Your task to perform on an android device: open app "Firefox Browser" (install if not already installed) Image 0: 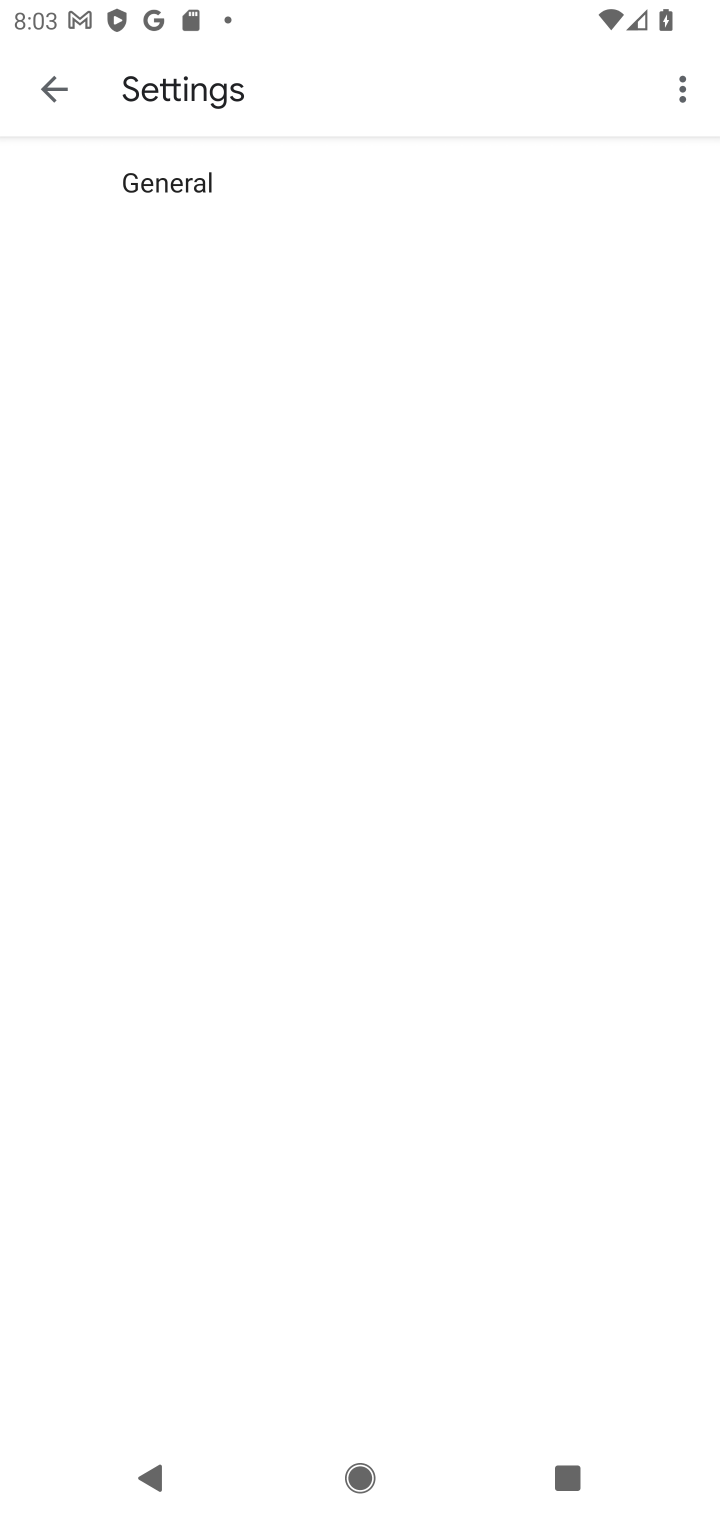
Step 0: press home button
Your task to perform on an android device: open app "Firefox Browser" (install if not already installed) Image 1: 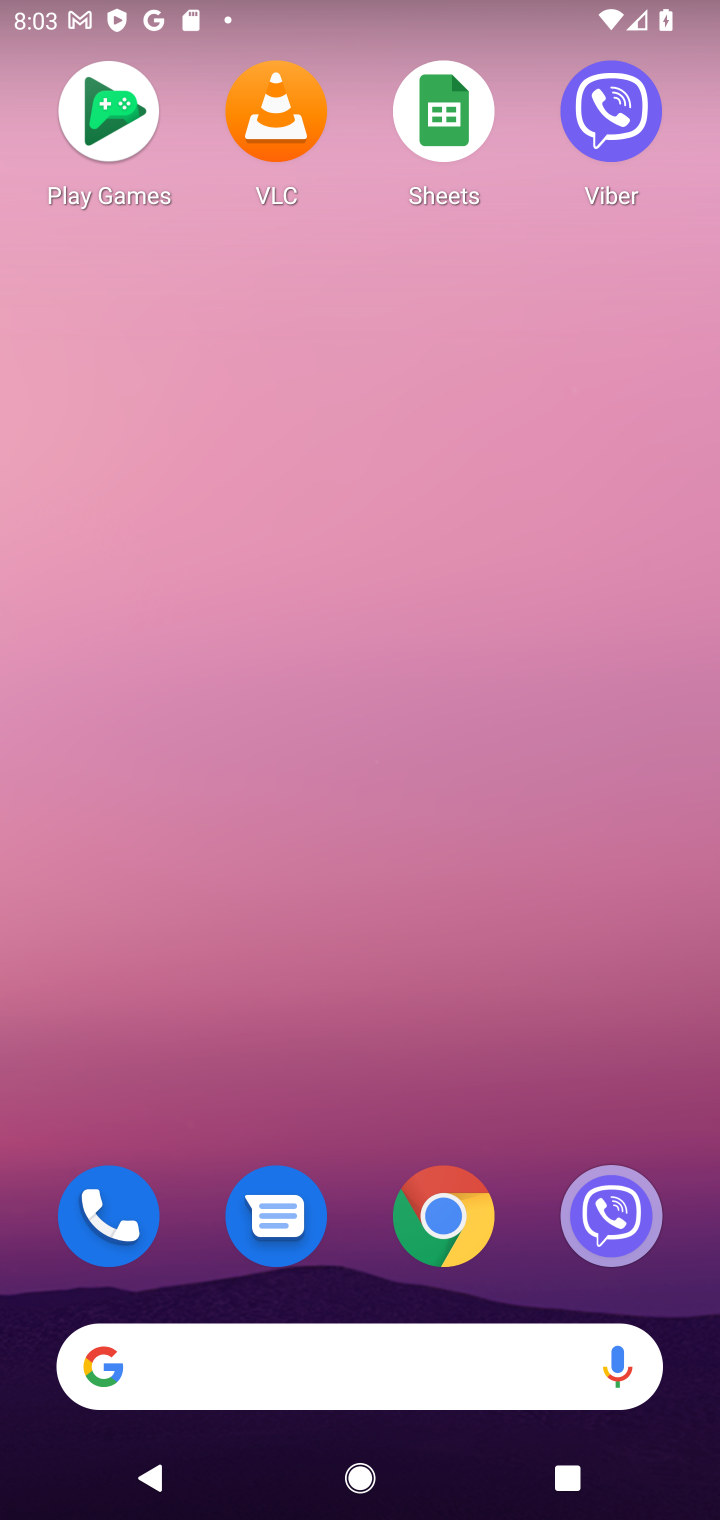
Step 1: drag from (368, 908) to (480, 97)
Your task to perform on an android device: open app "Firefox Browser" (install if not already installed) Image 2: 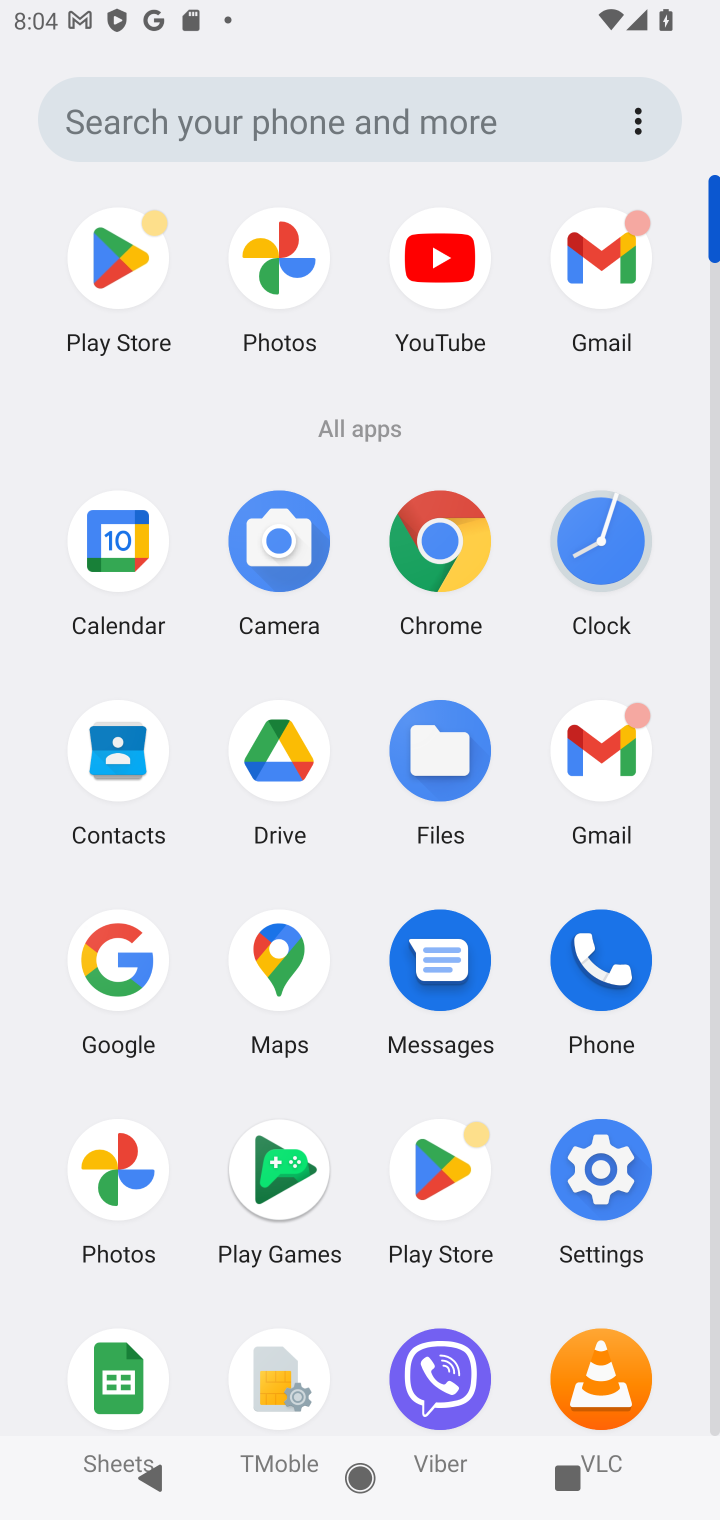
Step 2: click (106, 267)
Your task to perform on an android device: open app "Firefox Browser" (install if not already installed) Image 3: 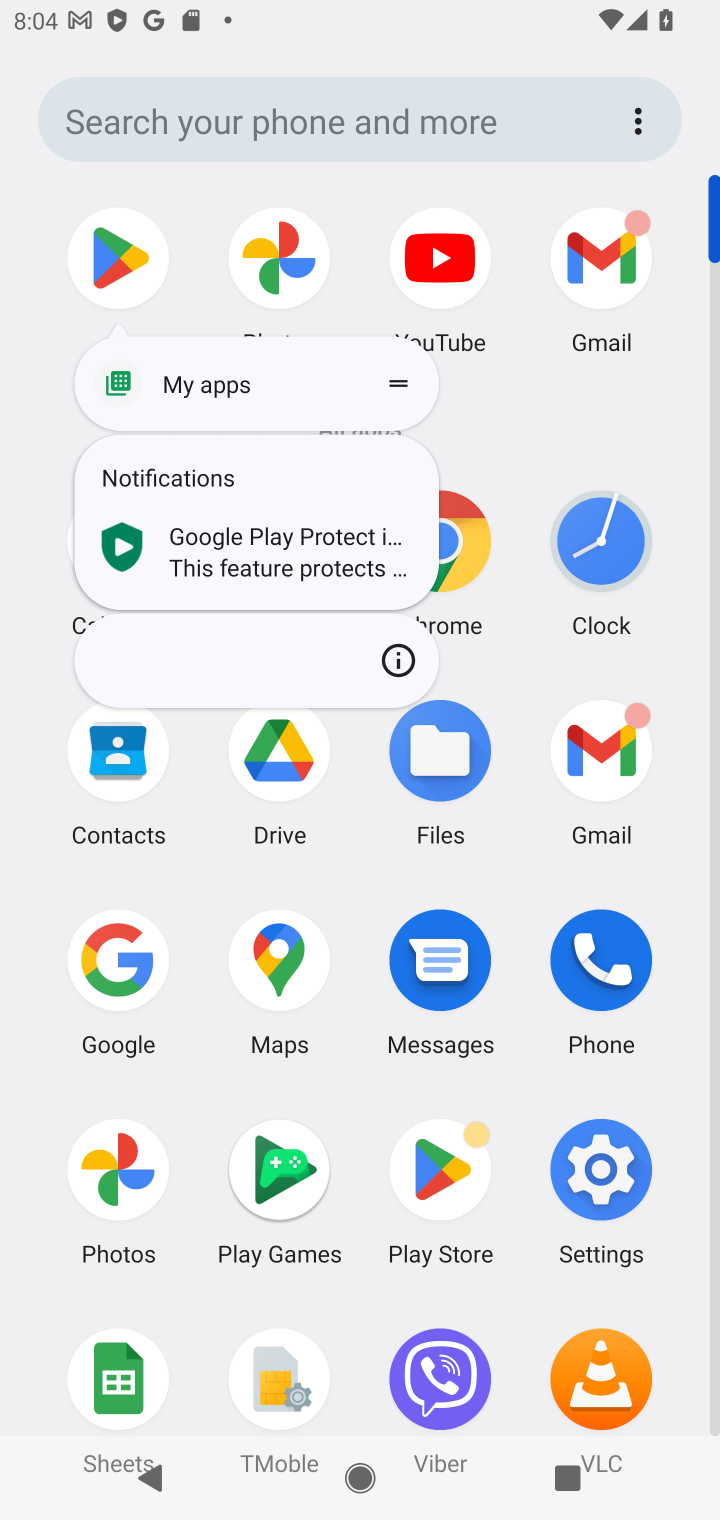
Step 3: click (121, 254)
Your task to perform on an android device: open app "Firefox Browser" (install if not already installed) Image 4: 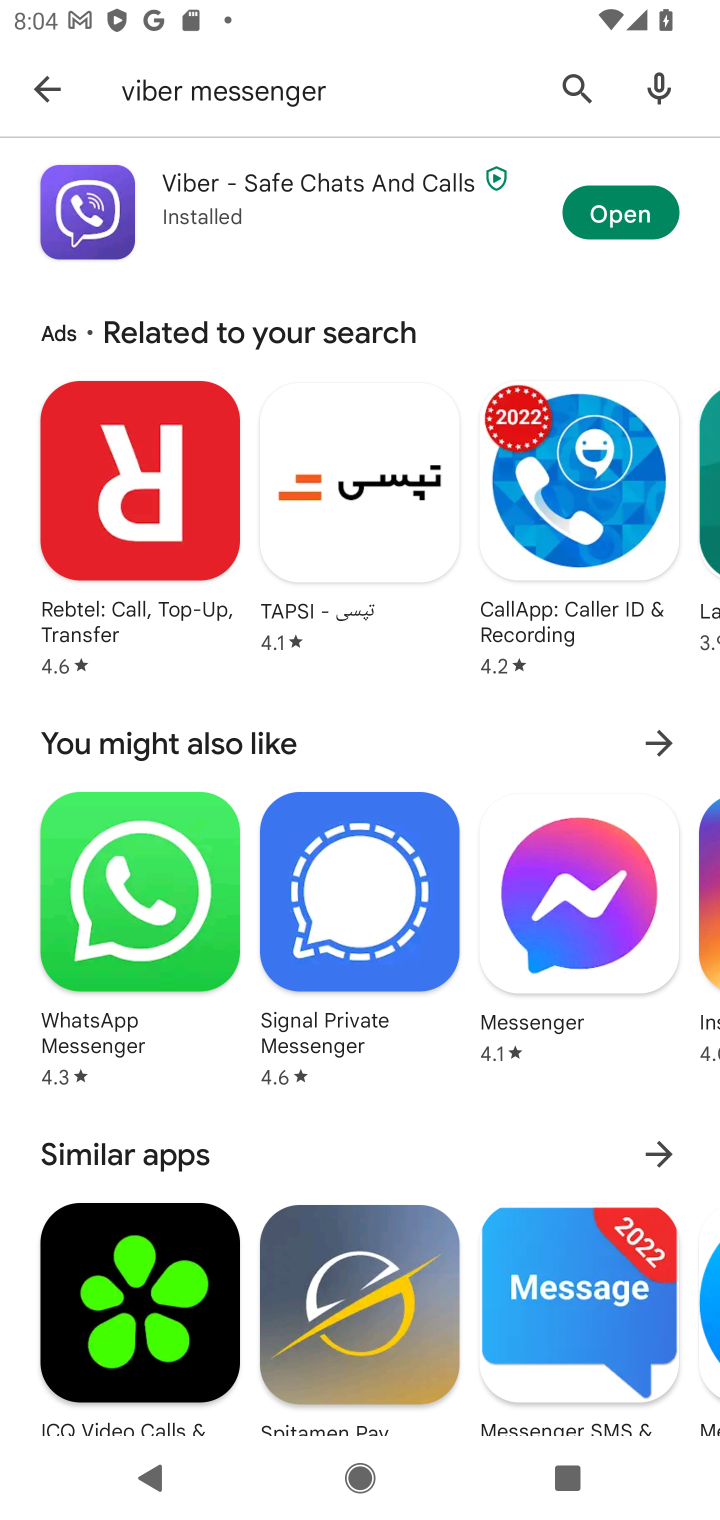
Step 4: click (580, 80)
Your task to perform on an android device: open app "Firefox Browser" (install if not already installed) Image 5: 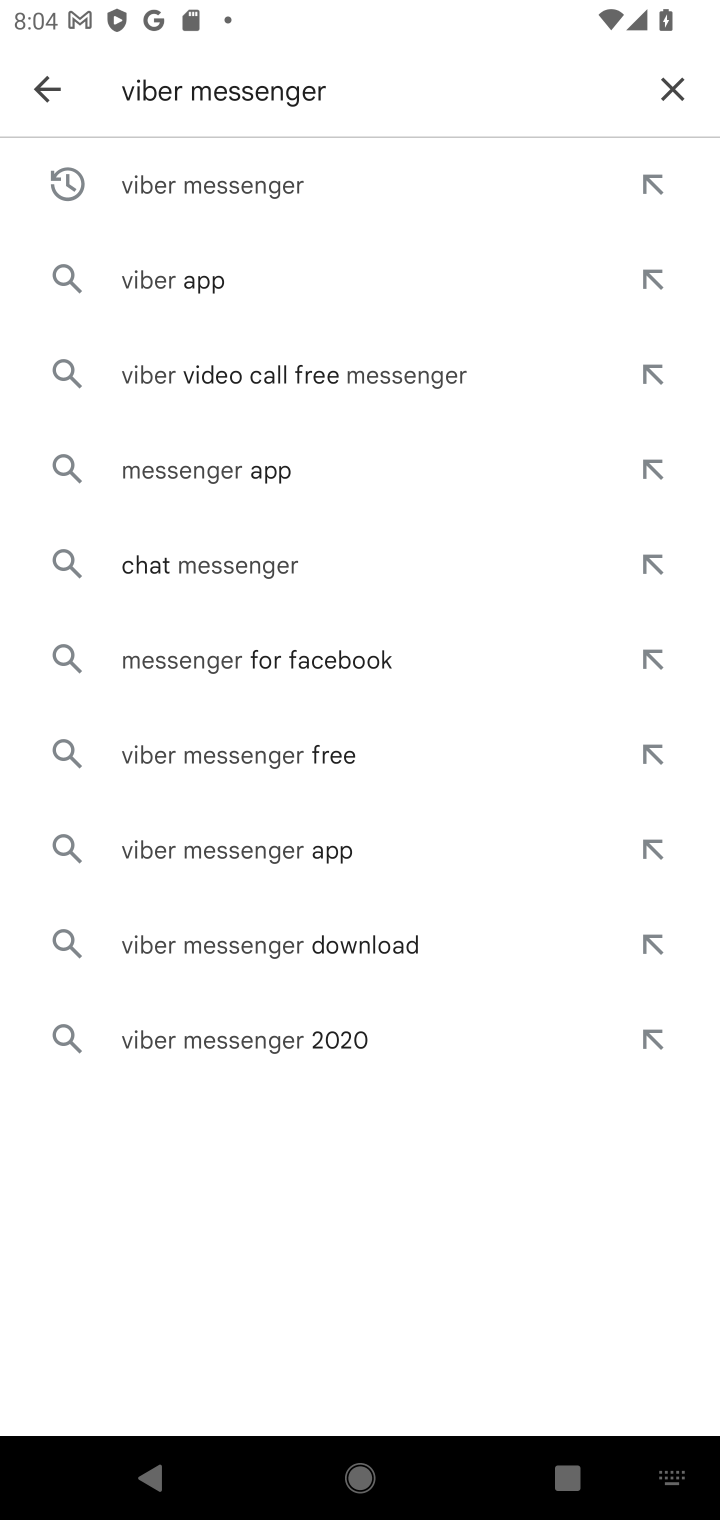
Step 5: click (681, 81)
Your task to perform on an android device: open app "Firefox Browser" (install if not already installed) Image 6: 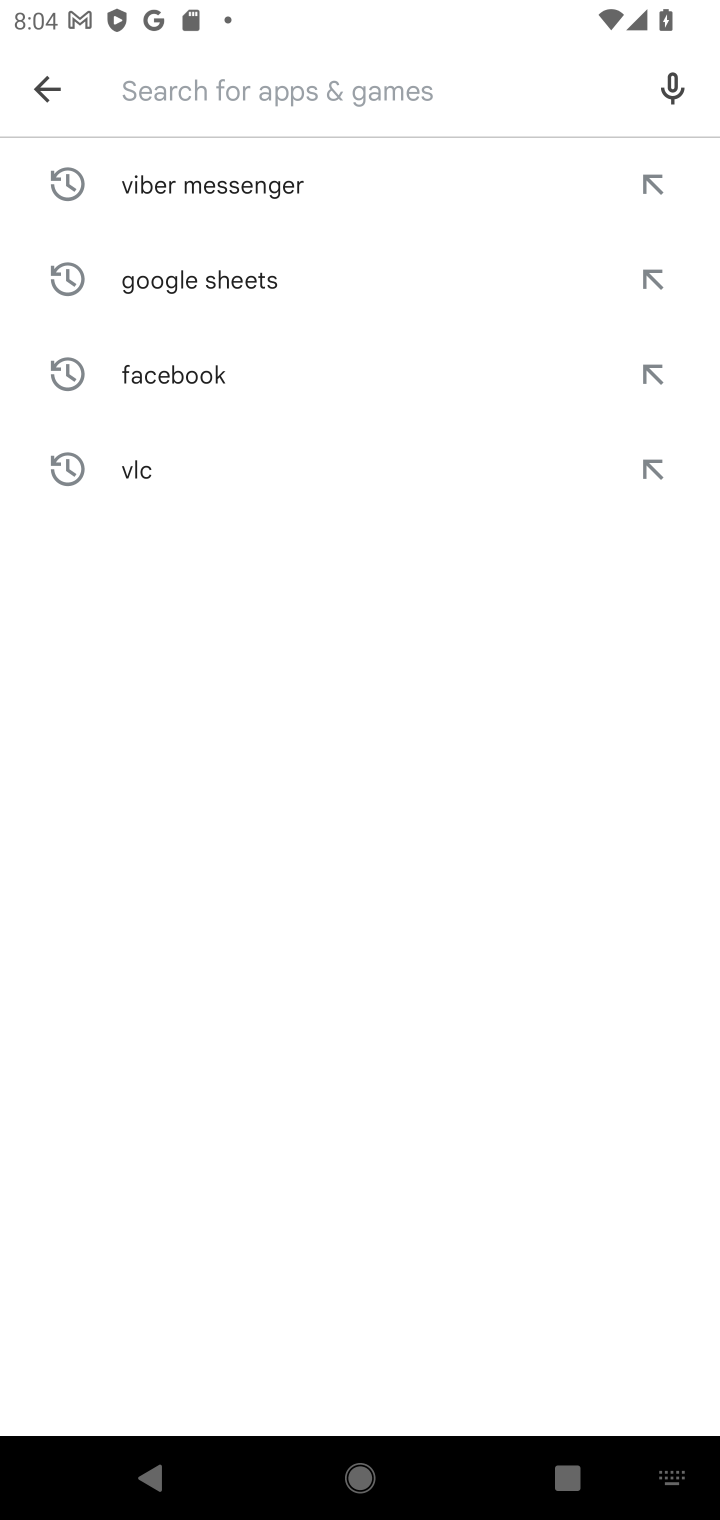
Step 6: click (159, 77)
Your task to perform on an android device: open app "Firefox Browser" (install if not already installed) Image 7: 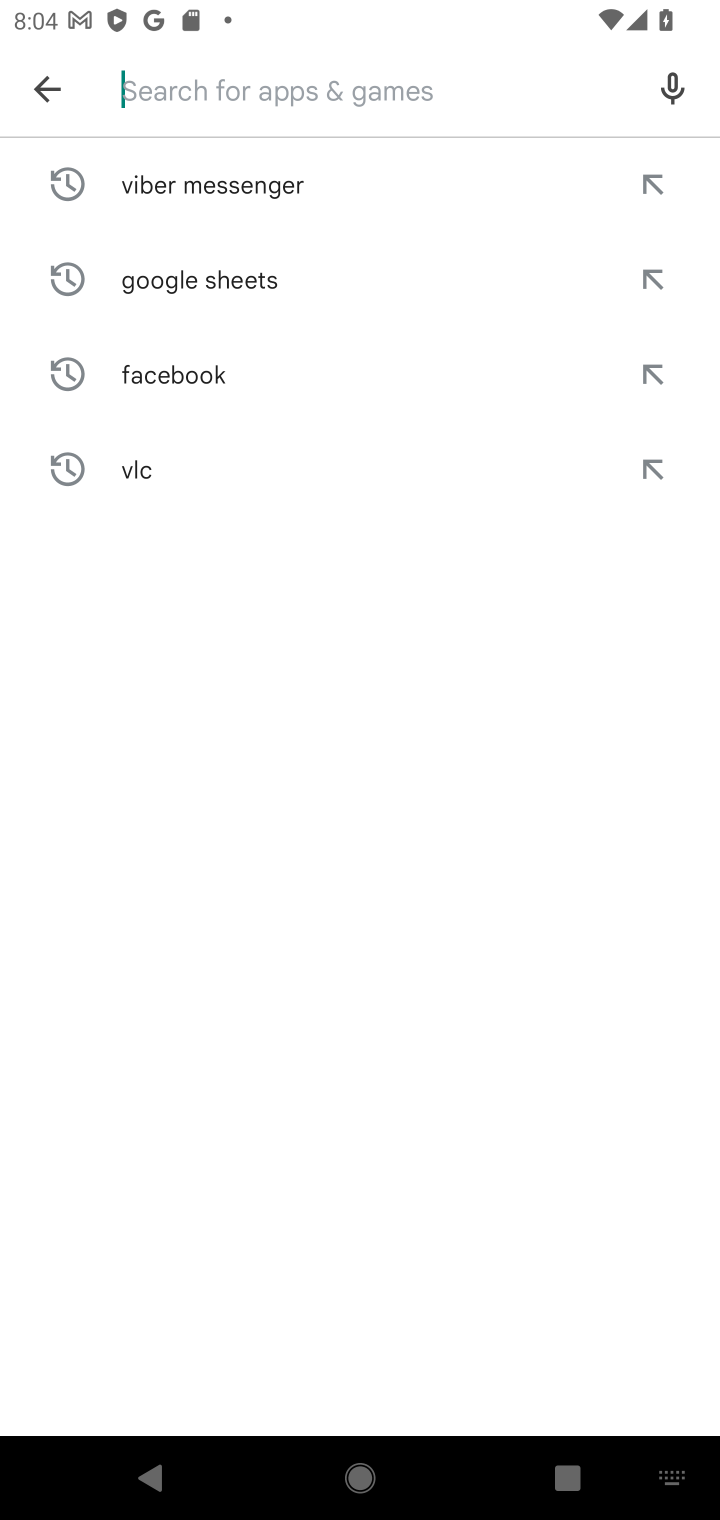
Step 7: click (202, 112)
Your task to perform on an android device: open app "Firefox Browser" (install if not already installed) Image 8: 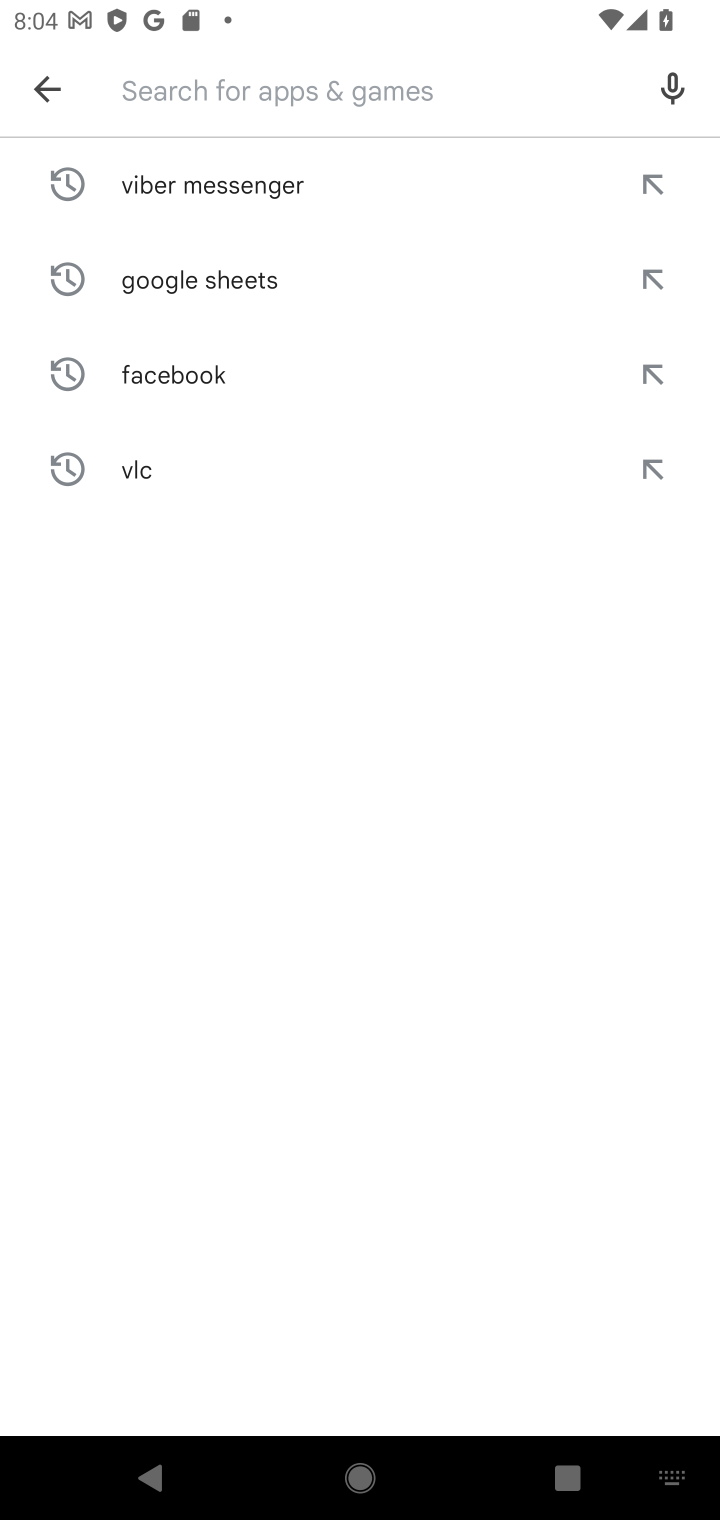
Step 8: type "Firefox Browser"
Your task to perform on an android device: open app "Firefox Browser" (install if not already installed) Image 9: 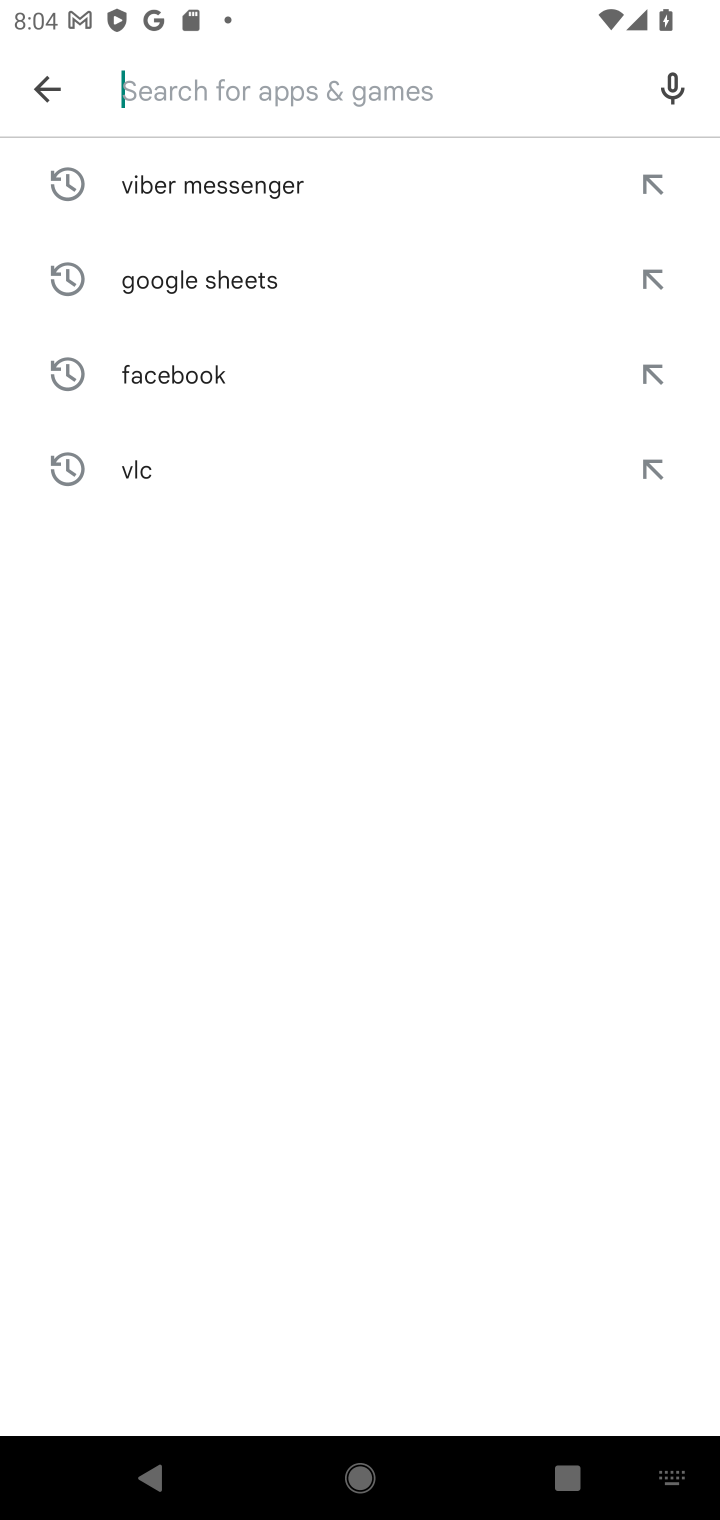
Step 9: click (406, 784)
Your task to perform on an android device: open app "Firefox Browser" (install if not already installed) Image 10: 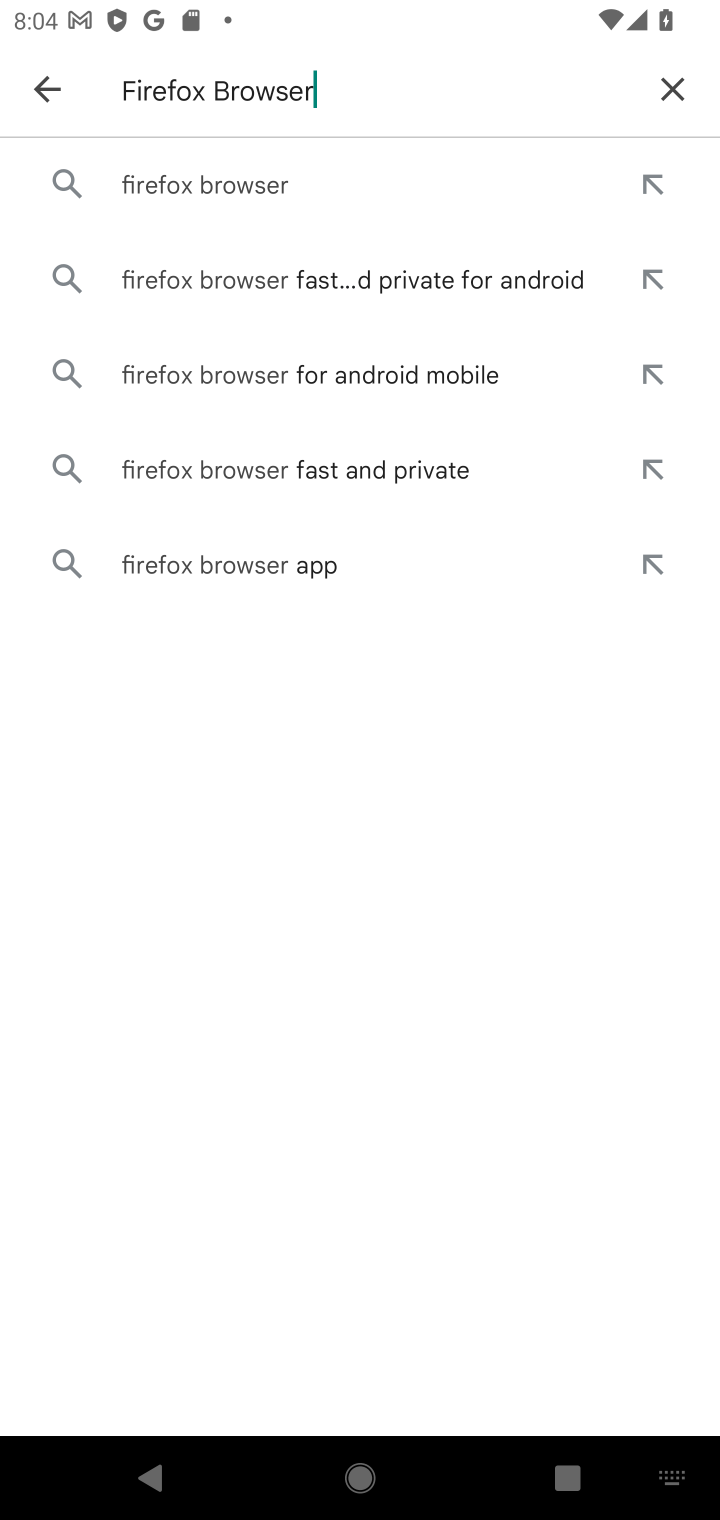
Step 10: click (214, 179)
Your task to perform on an android device: open app "Firefox Browser" (install if not already installed) Image 11: 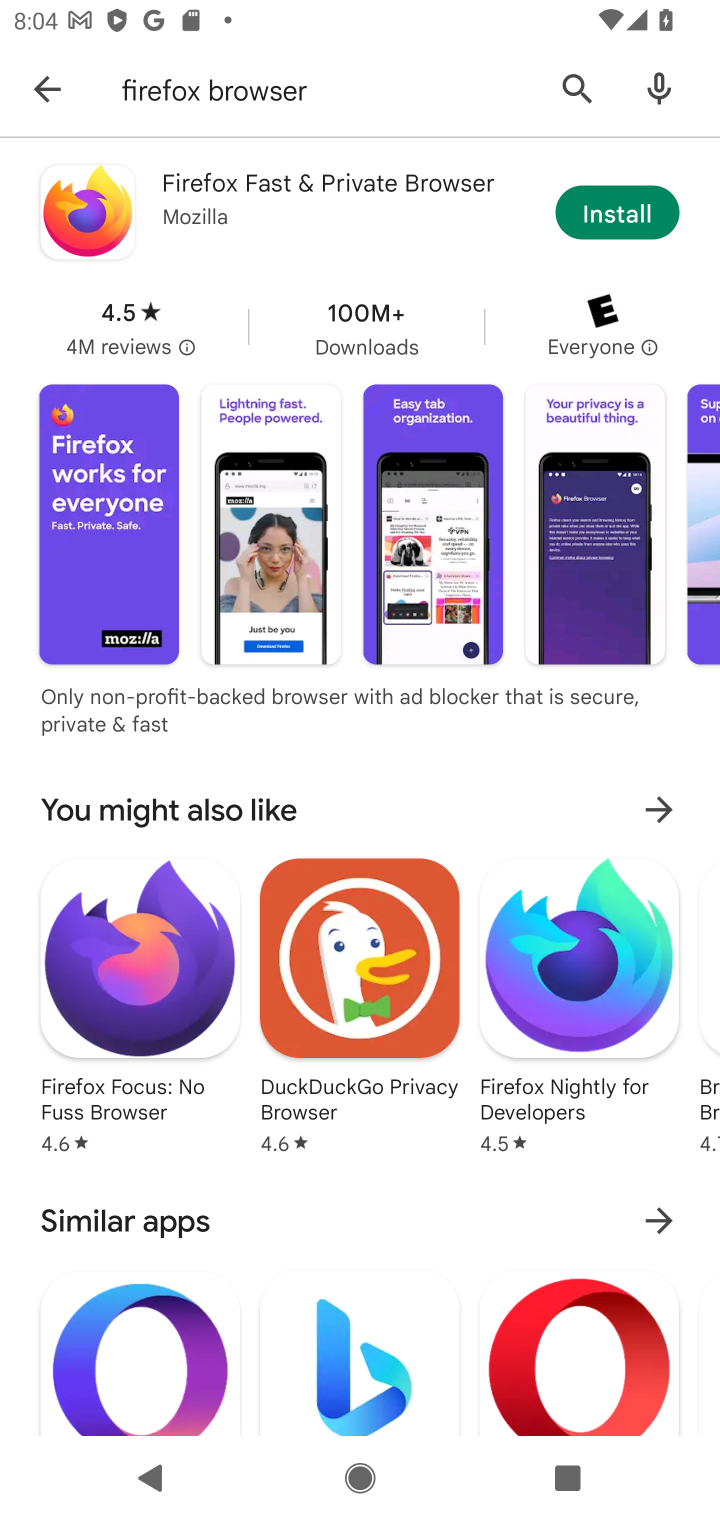
Step 11: click (617, 211)
Your task to perform on an android device: open app "Firefox Browser" (install if not already installed) Image 12: 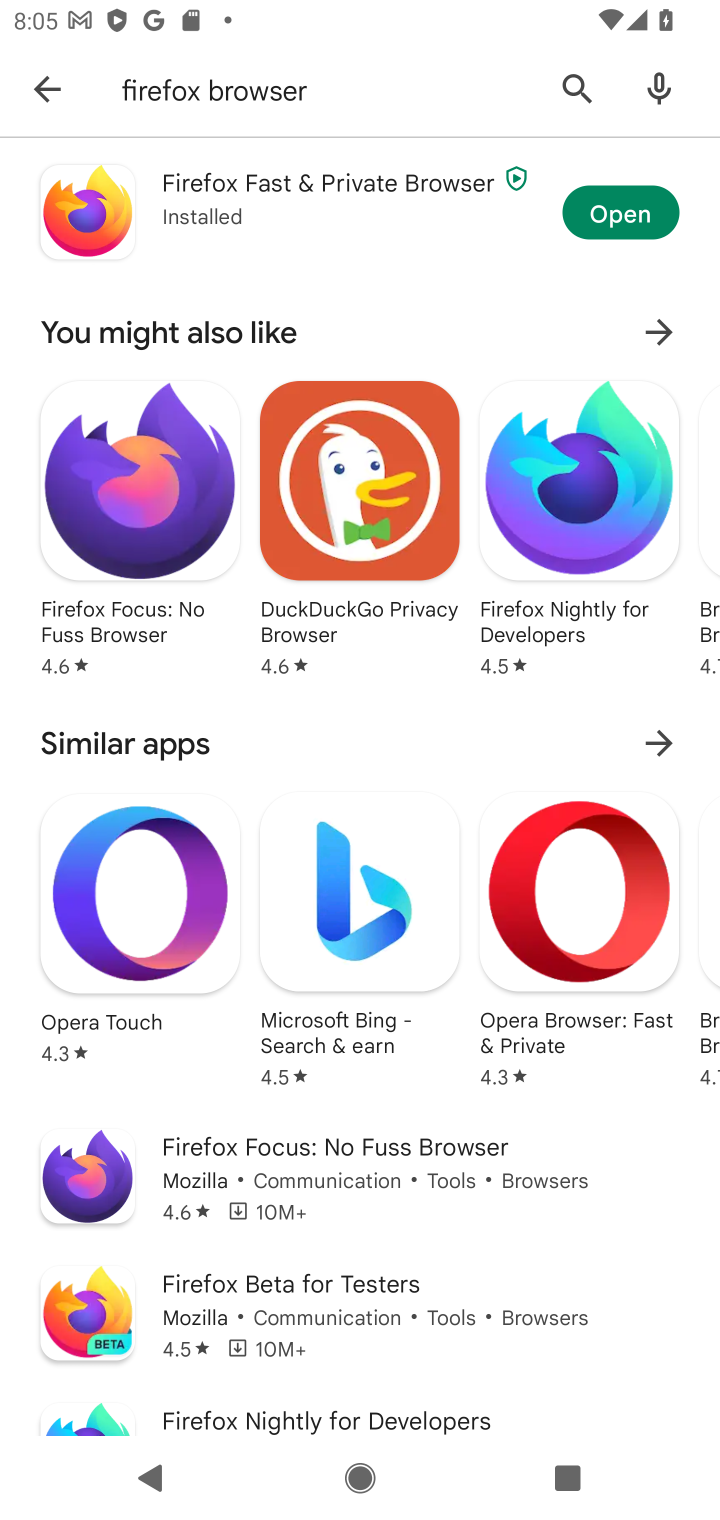
Step 12: click (645, 210)
Your task to perform on an android device: open app "Firefox Browser" (install if not already installed) Image 13: 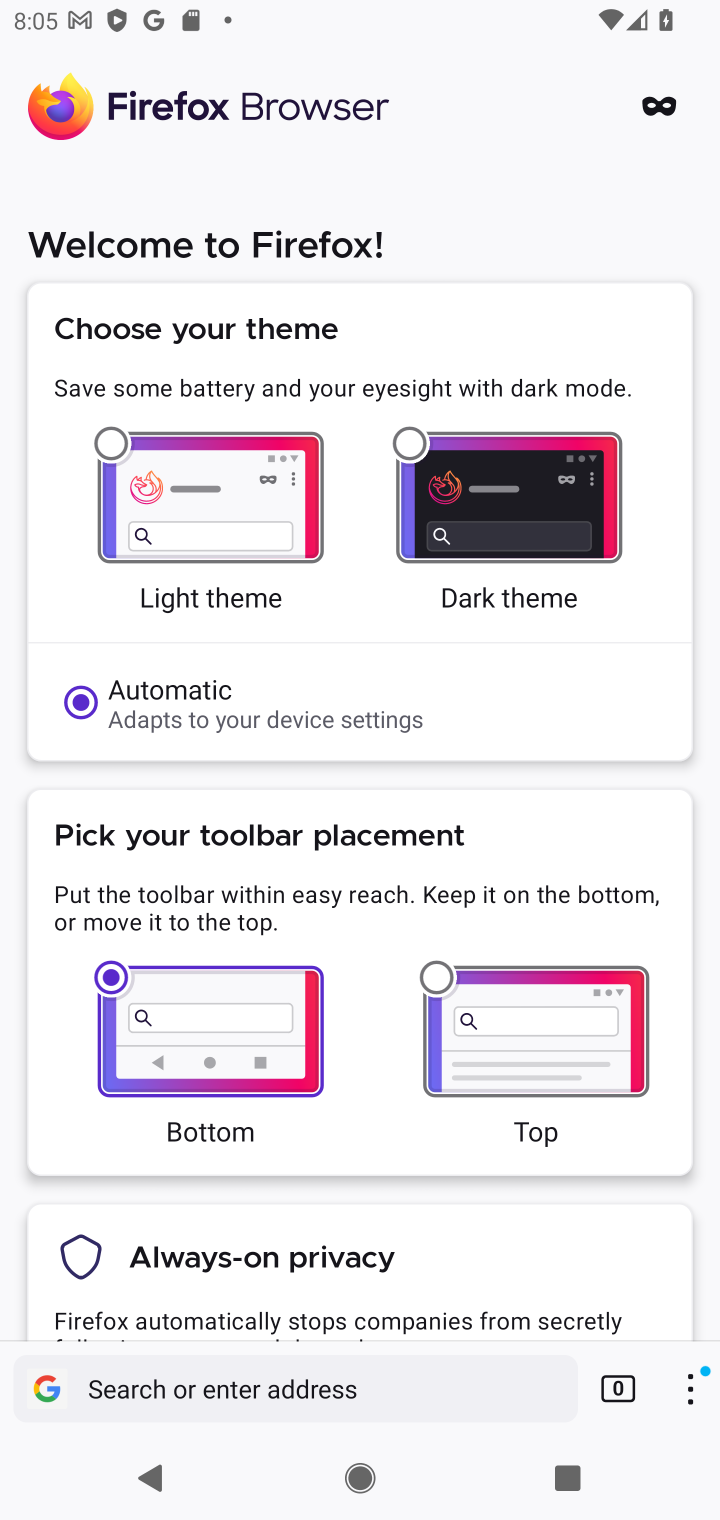
Step 13: task complete